Your task to perform on an android device: Go to privacy settings Image 0: 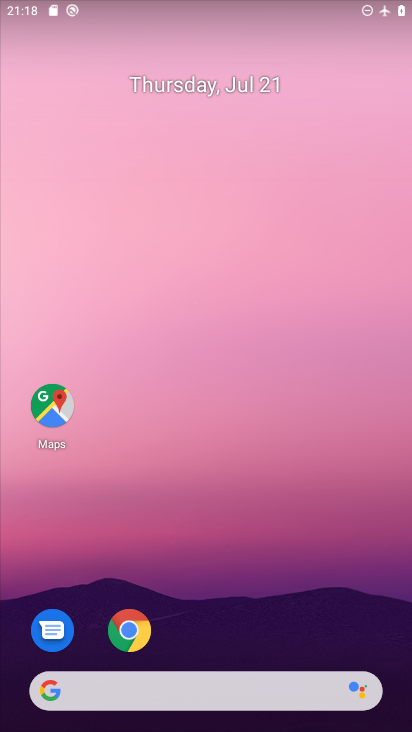
Step 0: drag from (310, 632) to (341, 44)
Your task to perform on an android device: Go to privacy settings Image 1: 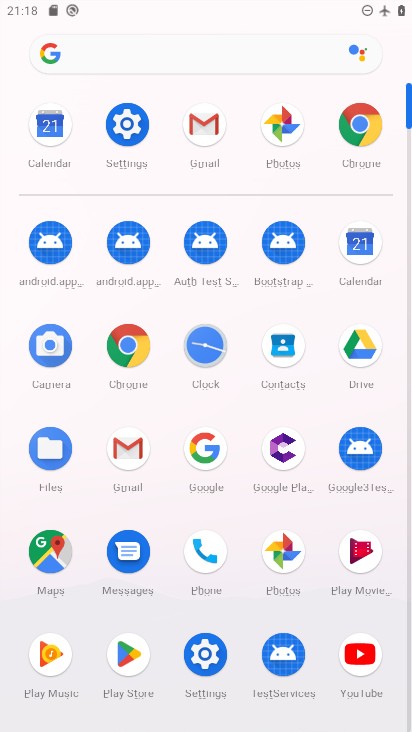
Step 1: click (137, 121)
Your task to perform on an android device: Go to privacy settings Image 2: 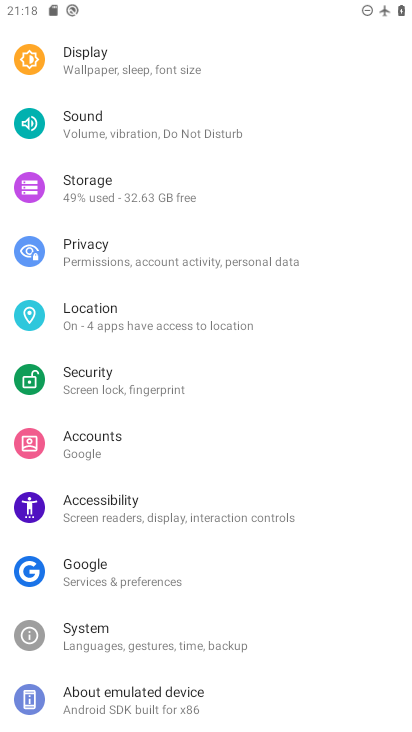
Step 2: click (102, 256)
Your task to perform on an android device: Go to privacy settings Image 3: 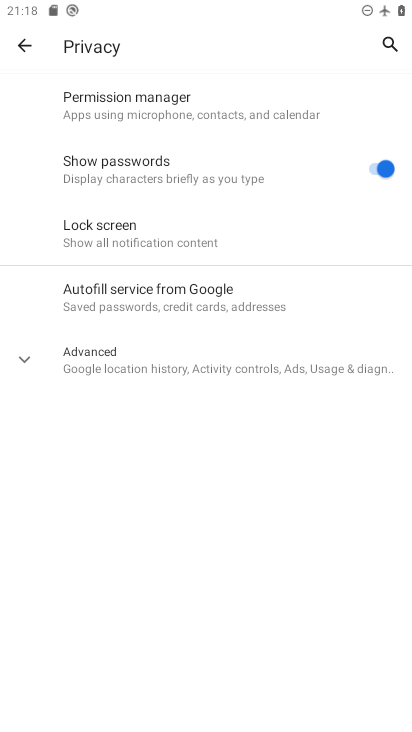
Step 3: task complete